Your task to perform on an android device: Go to internet settings Image 0: 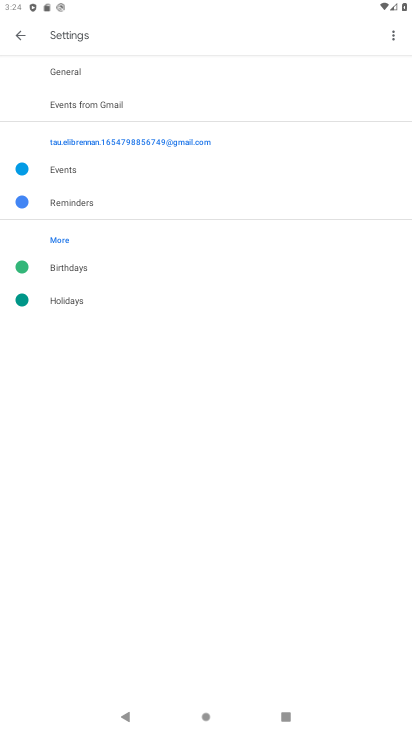
Step 0: press home button
Your task to perform on an android device: Go to internet settings Image 1: 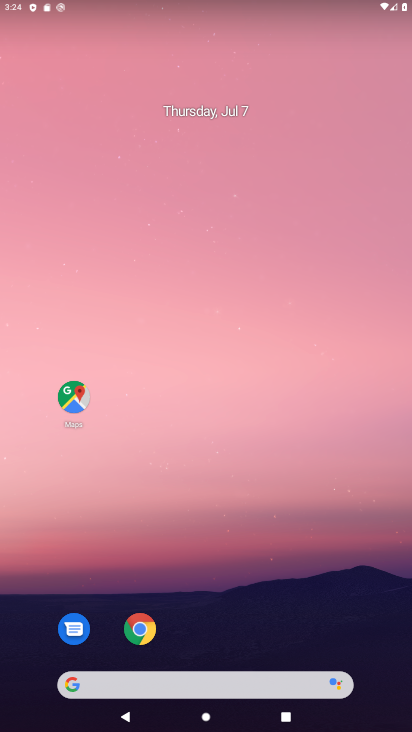
Step 1: drag from (20, 700) to (251, 6)
Your task to perform on an android device: Go to internet settings Image 2: 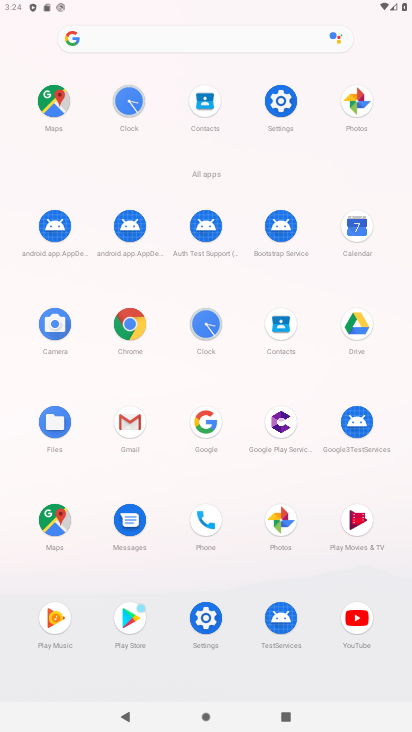
Step 2: click (292, 93)
Your task to perform on an android device: Go to internet settings Image 3: 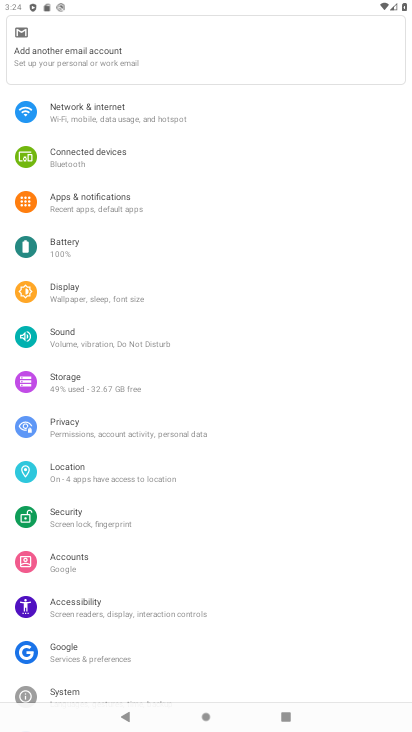
Step 3: click (78, 100)
Your task to perform on an android device: Go to internet settings Image 4: 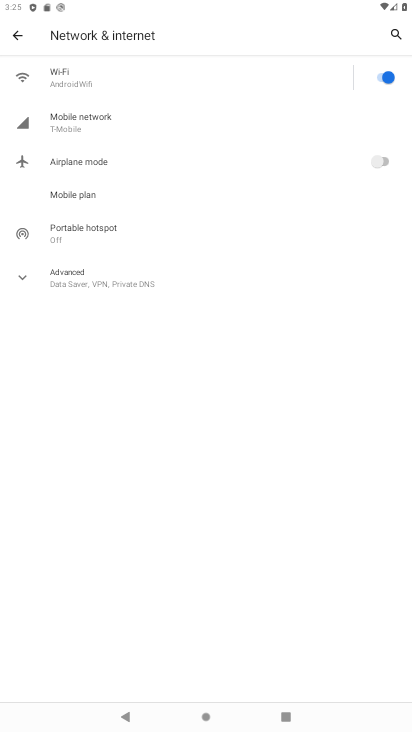
Step 4: task complete